Your task to perform on an android device: change keyboard looks Image 0: 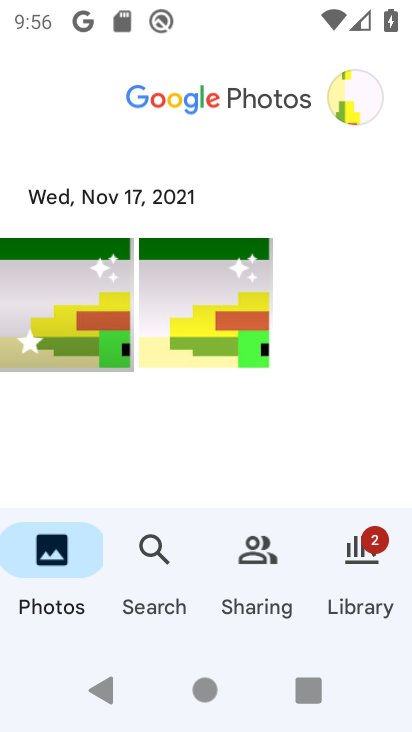
Step 0: press home button
Your task to perform on an android device: change keyboard looks Image 1: 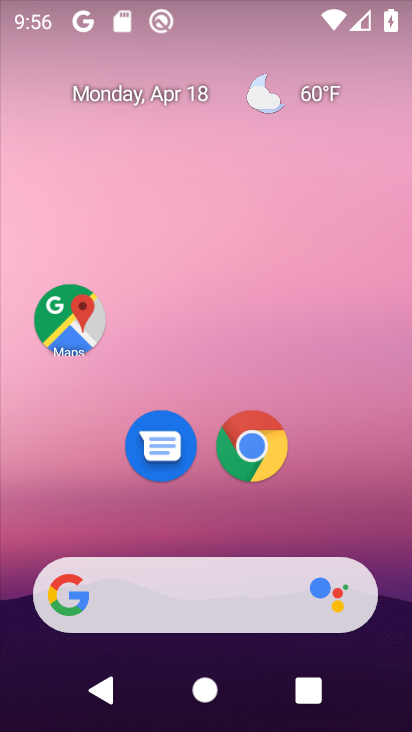
Step 1: drag from (386, 504) to (383, 105)
Your task to perform on an android device: change keyboard looks Image 2: 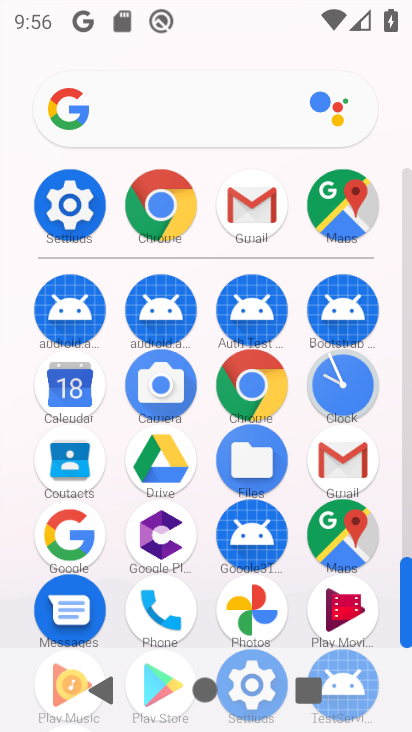
Step 2: click (74, 216)
Your task to perform on an android device: change keyboard looks Image 3: 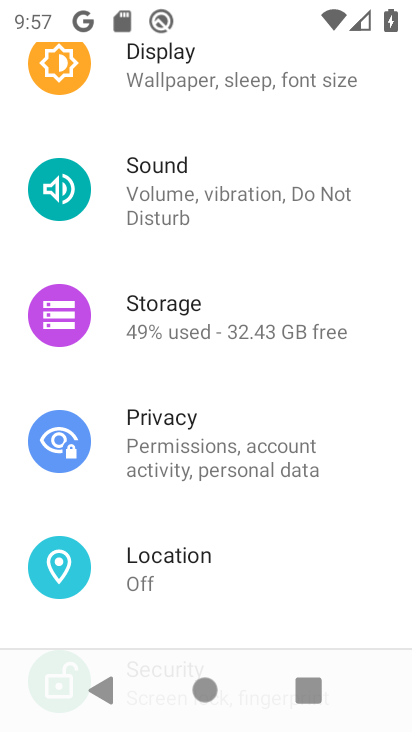
Step 3: drag from (379, 185) to (379, 498)
Your task to perform on an android device: change keyboard looks Image 4: 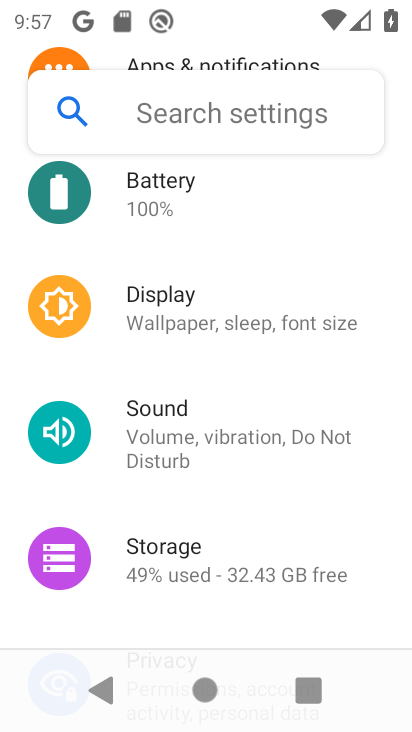
Step 4: drag from (378, 458) to (374, 258)
Your task to perform on an android device: change keyboard looks Image 5: 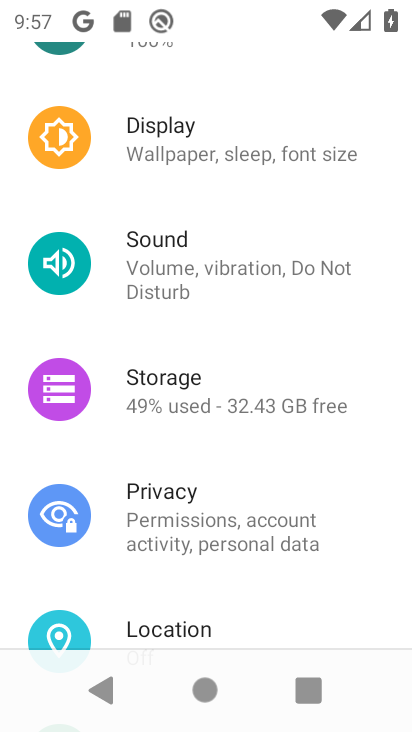
Step 5: drag from (374, 577) to (373, 272)
Your task to perform on an android device: change keyboard looks Image 6: 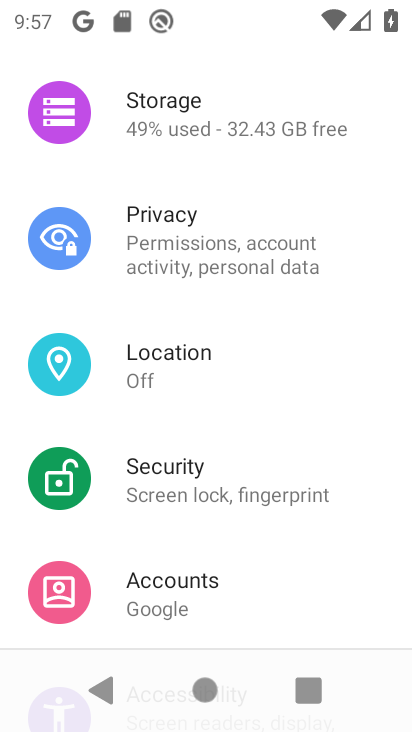
Step 6: drag from (373, 491) to (374, 212)
Your task to perform on an android device: change keyboard looks Image 7: 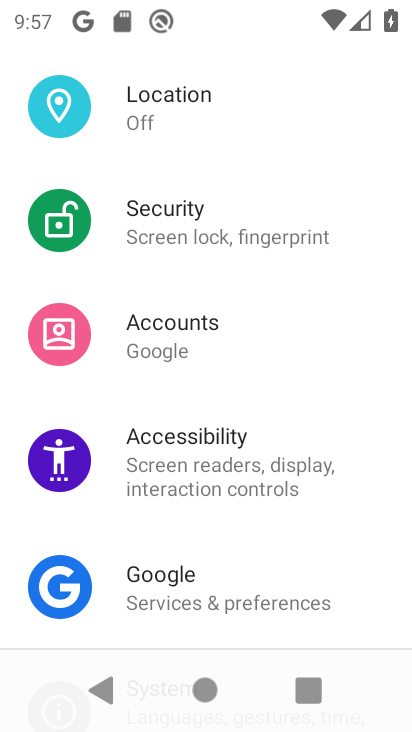
Step 7: drag from (368, 550) to (359, 282)
Your task to perform on an android device: change keyboard looks Image 8: 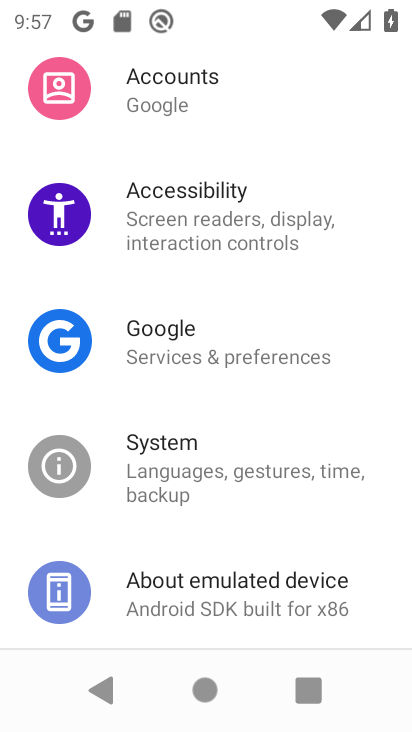
Step 8: click (313, 470)
Your task to perform on an android device: change keyboard looks Image 9: 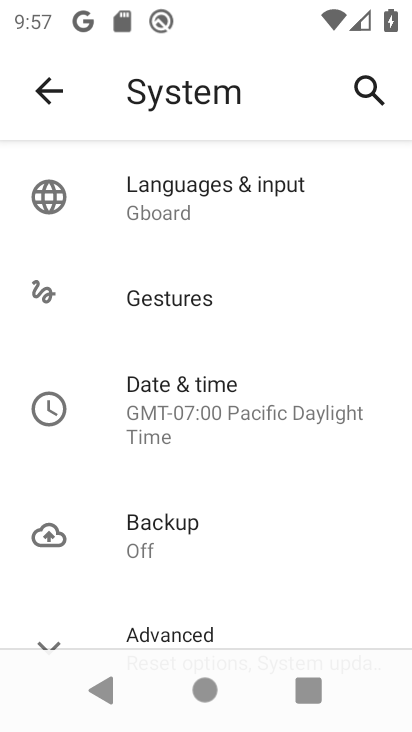
Step 9: click (180, 174)
Your task to perform on an android device: change keyboard looks Image 10: 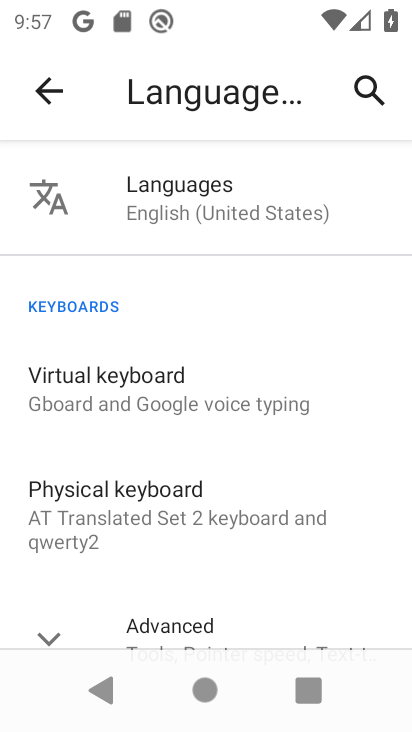
Step 10: click (235, 396)
Your task to perform on an android device: change keyboard looks Image 11: 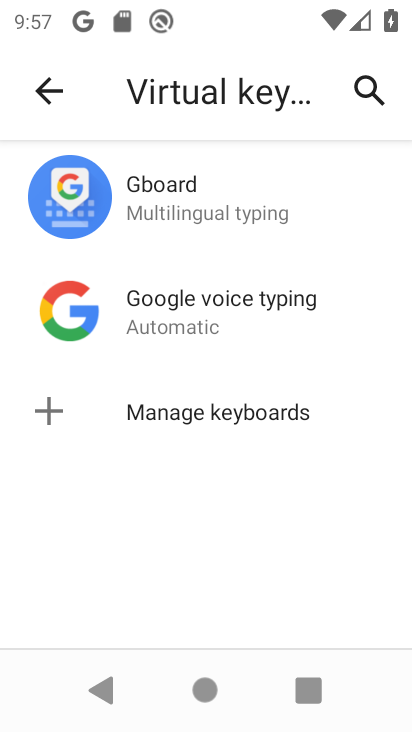
Step 11: click (180, 203)
Your task to perform on an android device: change keyboard looks Image 12: 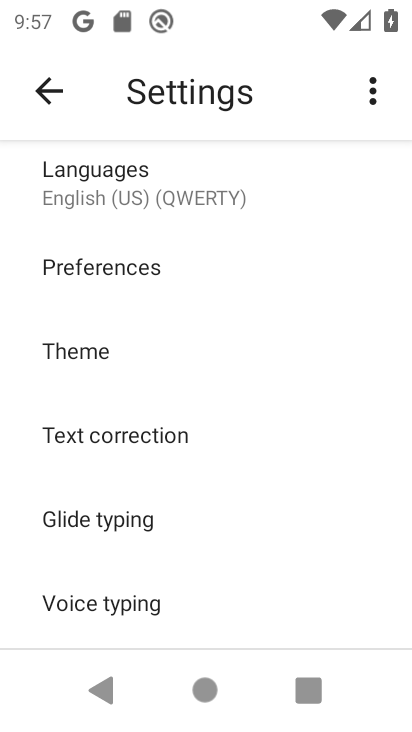
Step 12: click (108, 357)
Your task to perform on an android device: change keyboard looks Image 13: 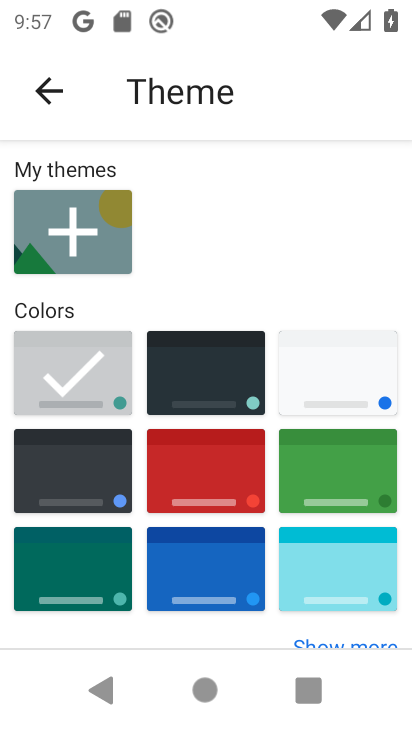
Step 13: click (195, 450)
Your task to perform on an android device: change keyboard looks Image 14: 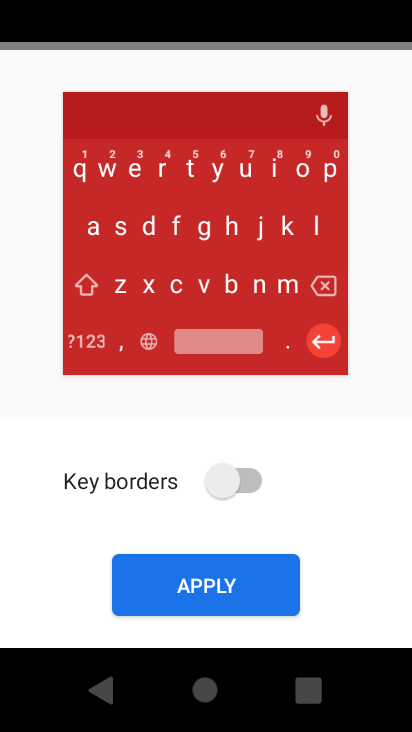
Step 14: click (224, 598)
Your task to perform on an android device: change keyboard looks Image 15: 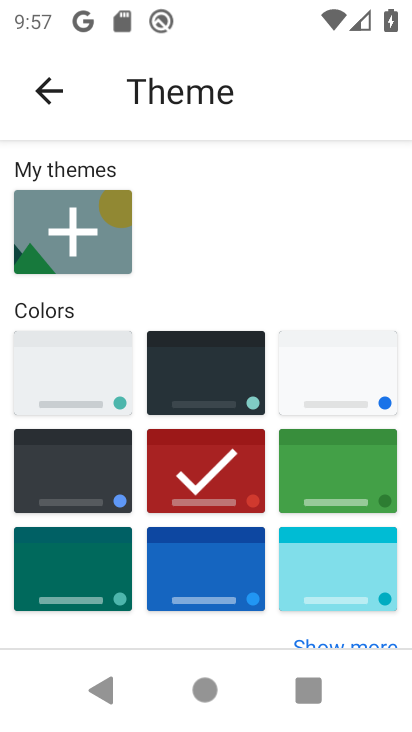
Step 15: task complete